Your task to perform on an android device: toggle translation in the chrome app Image 0: 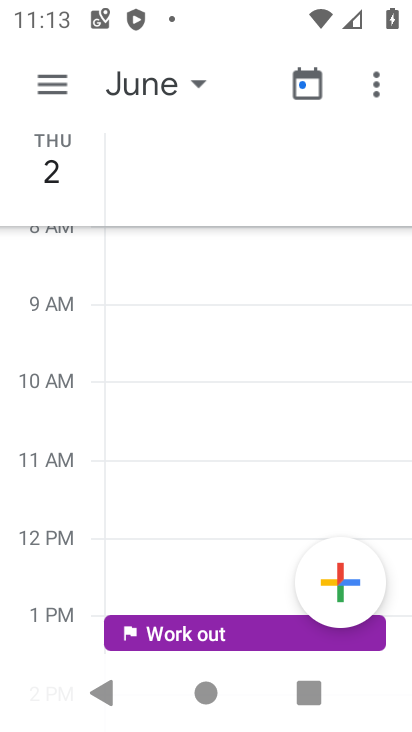
Step 0: press home button
Your task to perform on an android device: toggle translation in the chrome app Image 1: 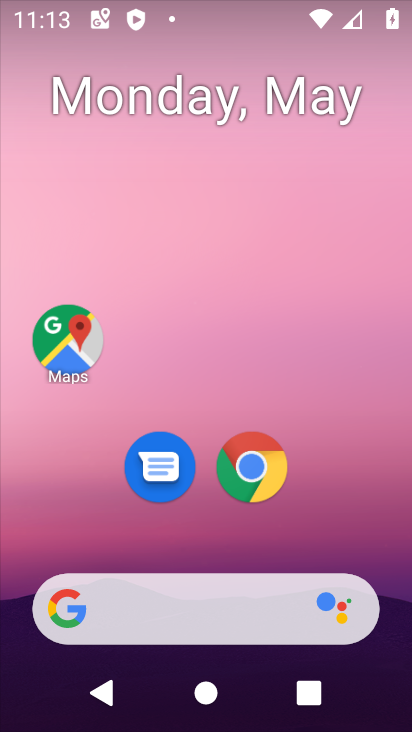
Step 1: click (253, 469)
Your task to perform on an android device: toggle translation in the chrome app Image 2: 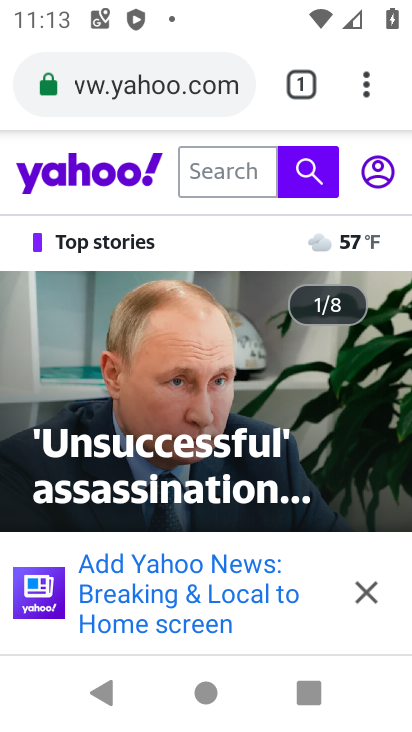
Step 2: click (364, 80)
Your task to perform on an android device: toggle translation in the chrome app Image 3: 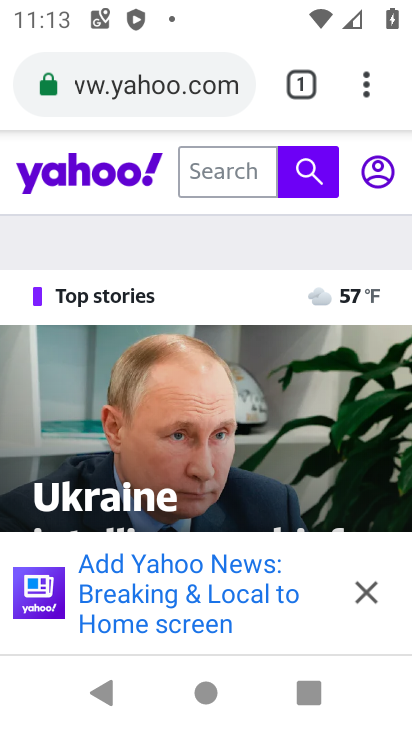
Step 3: click (364, 80)
Your task to perform on an android device: toggle translation in the chrome app Image 4: 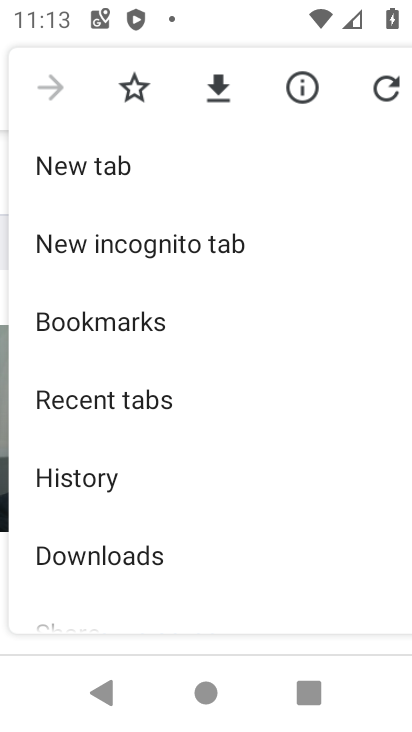
Step 4: drag from (193, 560) to (174, 264)
Your task to perform on an android device: toggle translation in the chrome app Image 5: 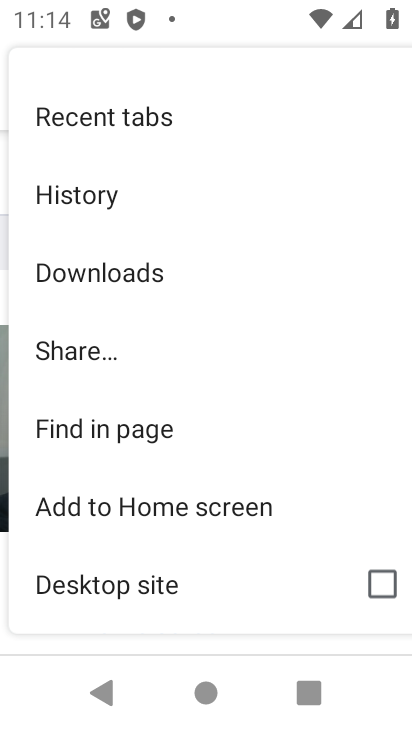
Step 5: drag from (164, 568) to (201, 204)
Your task to perform on an android device: toggle translation in the chrome app Image 6: 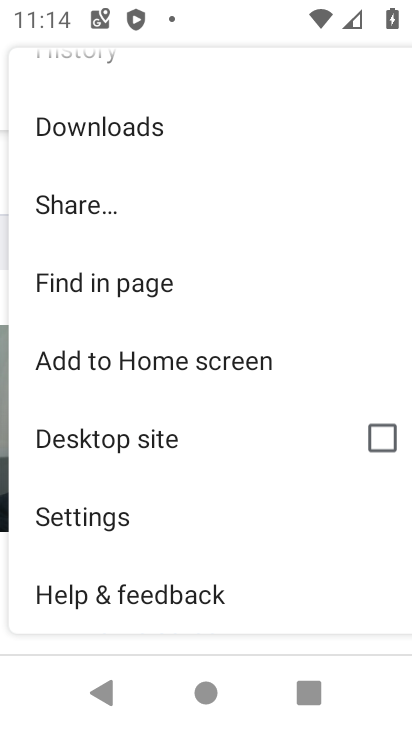
Step 6: click (188, 517)
Your task to perform on an android device: toggle translation in the chrome app Image 7: 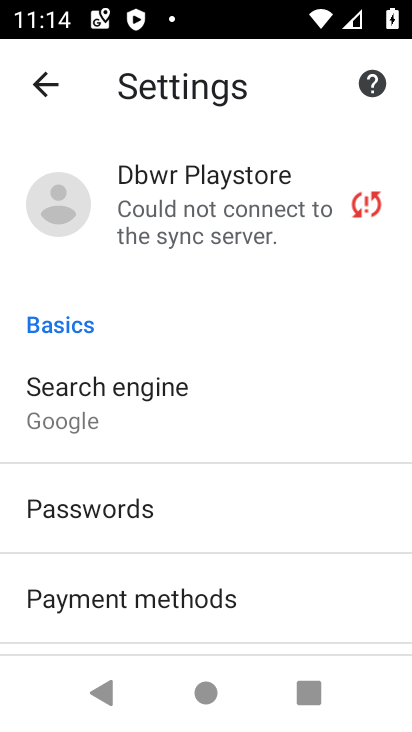
Step 7: drag from (160, 569) to (214, 345)
Your task to perform on an android device: toggle translation in the chrome app Image 8: 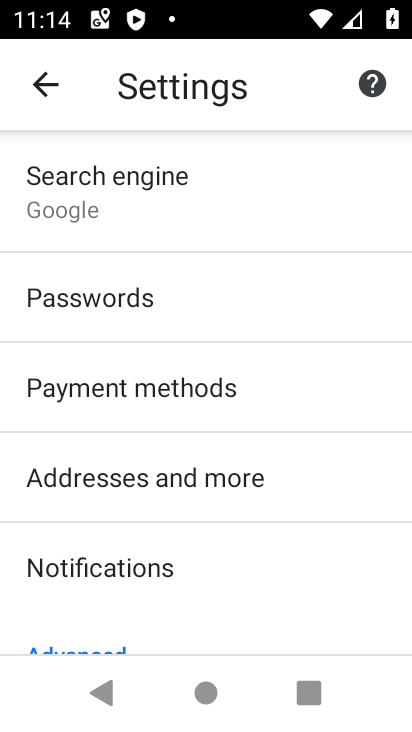
Step 8: drag from (173, 610) to (246, 364)
Your task to perform on an android device: toggle translation in the chrome app Image 9: 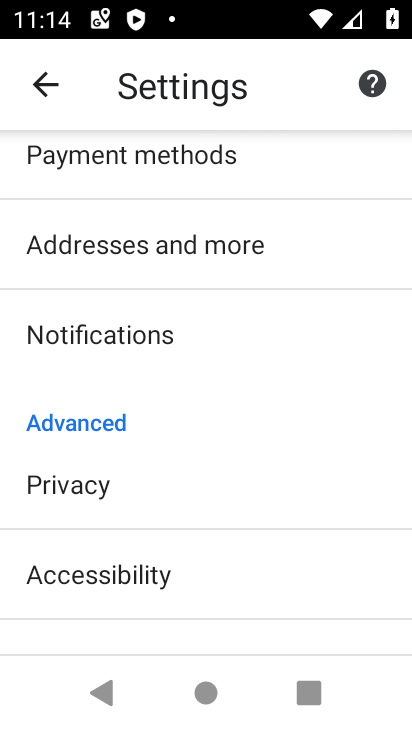
Step 9: drag from (194, 607) to (242, 343)
Your task to perform on an android device: toggle translation in the chrome app Image 10: 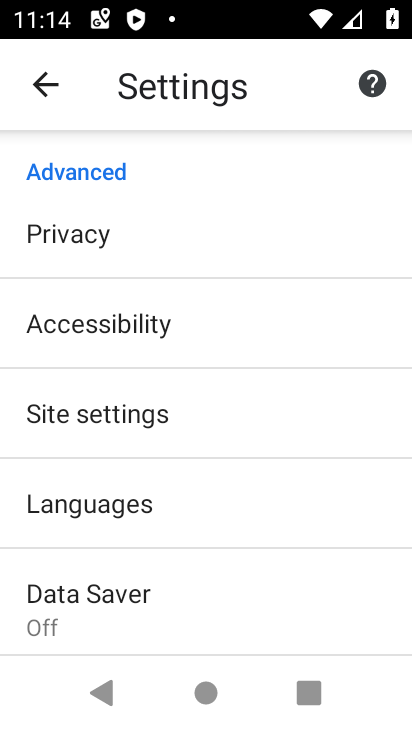
Step 10: click (195, 516)
Your task to perform on an android device: toggle translation in the chrome app Image 11: 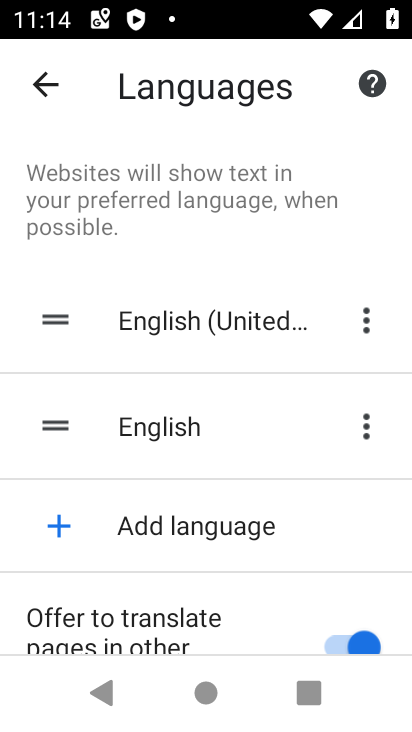
Step 11: click (336, 649)
Your task to perform on an android device: toggle translation in the chrome app Image 12: 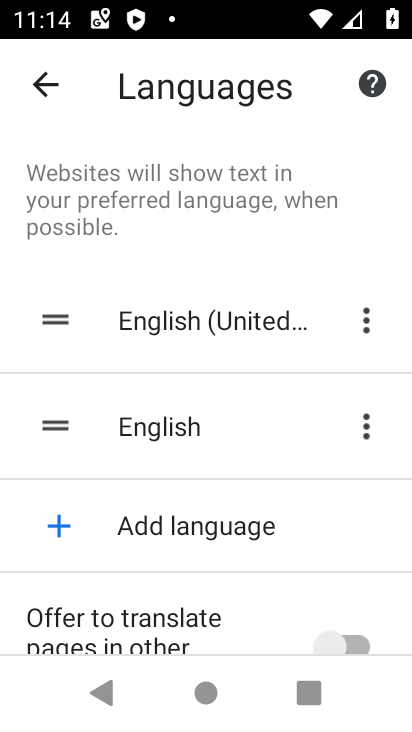
Step 12: task complete